Your task to perform on an android device: Open accessibility settings Image 0: 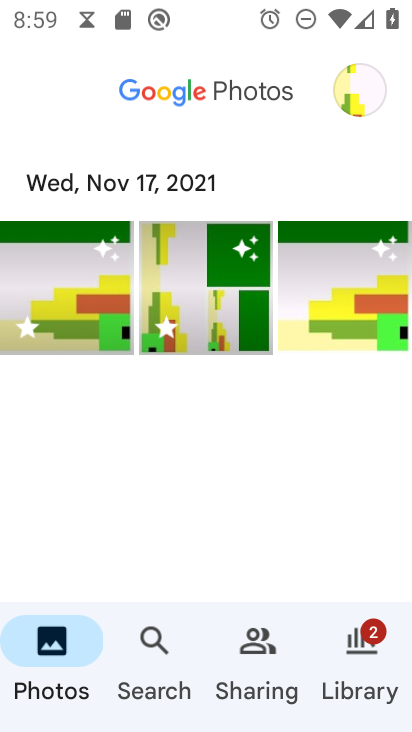
Step 0: press home button
Your task to perform on an android device: Open accessibility settings Image 1: 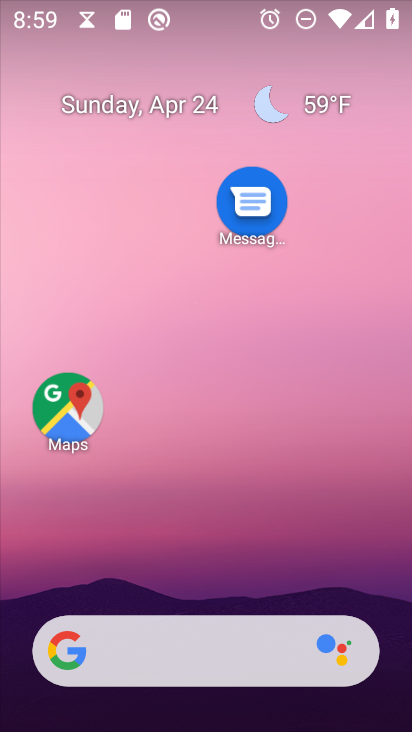
Step 1: drag from (159, 657) to (349, 30)
Your task to perform on an android device: Open accessibility settings Image 2: 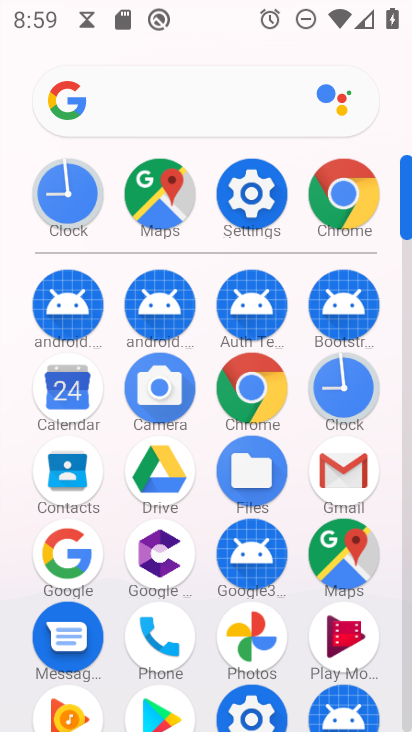
Step 2: click (257, 210)
Your task to perform on an android device: Open accessibility settings Image 3: 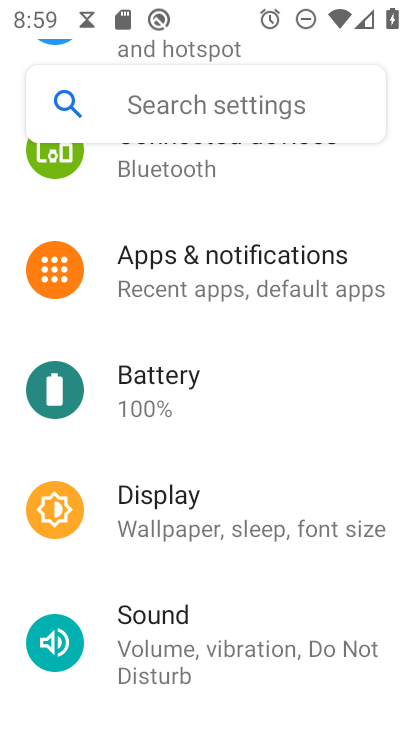
Step 3: drag from (197, 642) to (401, 122)
Your task to perform on an android device: Open accessibility settings Image 4: 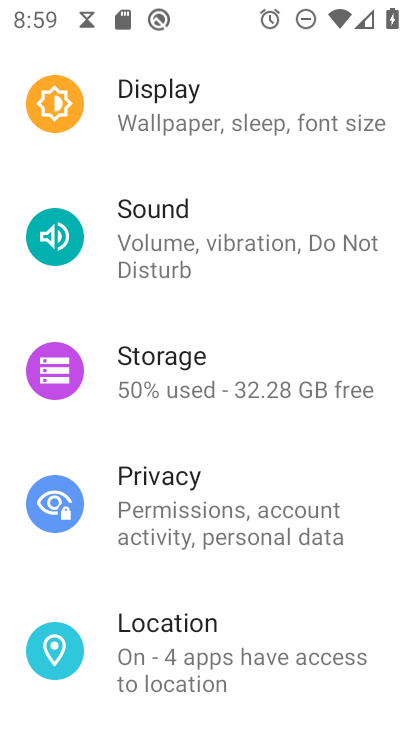
Step 4: drag from (212, 612) to (340, 195)
Your task to perform on an android device: Open accessibility settings Image 5: 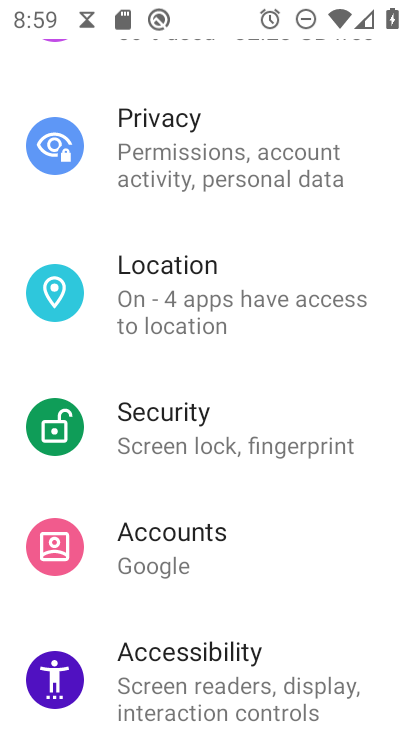
Step 5: click (192, 649)
Your task to perform on an android device: Open accessibility settings Image 6: 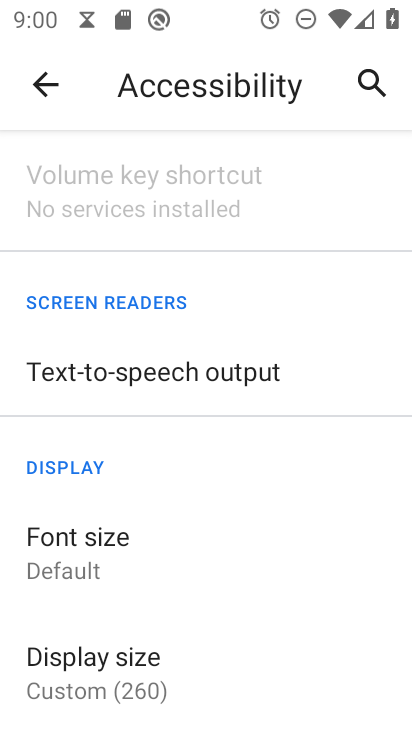
Step 6: task complete